Your task to perform on an android device: change the clock display to analog Image 0: 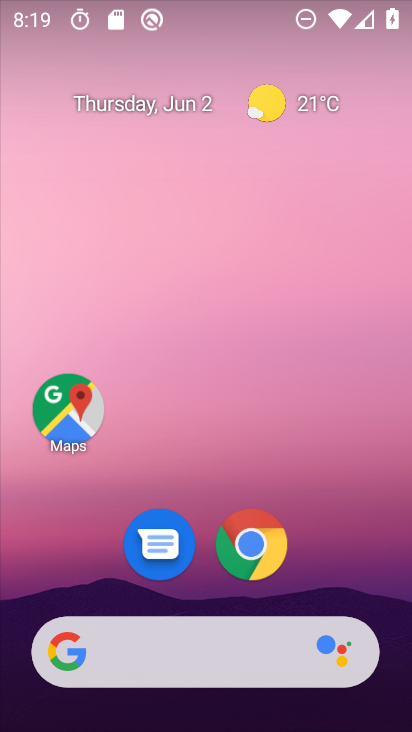
Step 0: drag from (362, 590) to (374, 69)
Your task to perform on an android device: change the clock display to analog Image 1: 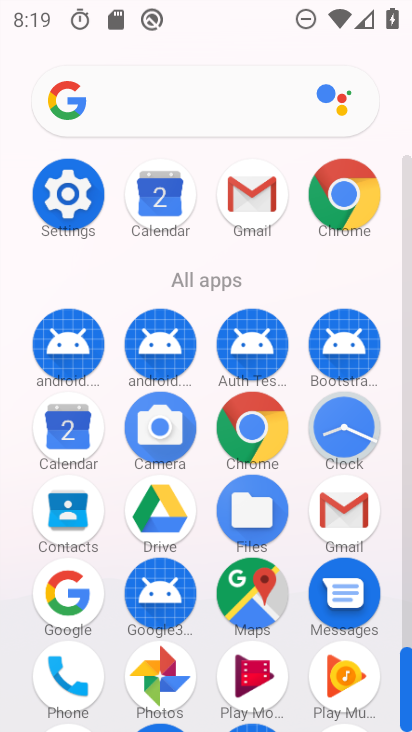
Step 1: click (347, 423)
Your task to perform on an android device: change the clock display to analog Image 2: 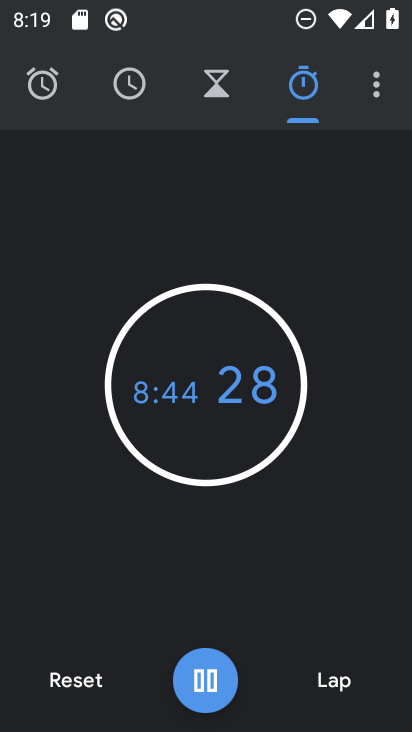
Step 2: click (382, 97)
Your task to perform on an android device: change the clock display to analog Image 3: 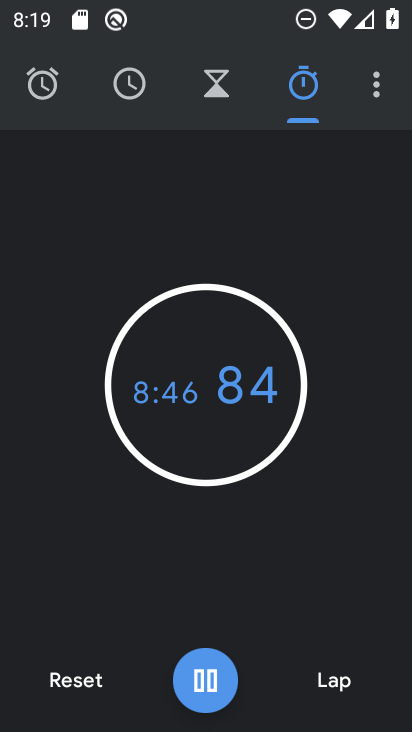
Step 3: click (378, 97)
Your task to perform on an android device: change the clock display to analog Image 4: 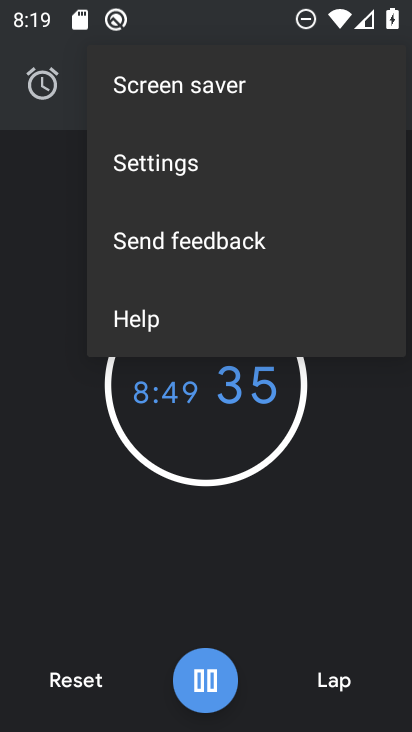
Step 4: click (221, 169)
Your task to perform on an android device: change the clock display to analog Image 5: 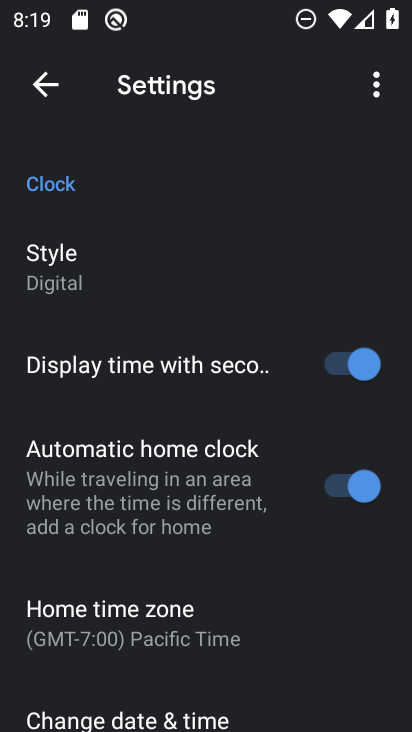
Step 5: click (84, 273)
Your task to perform on an android device: change the clock display to analog Image 6: 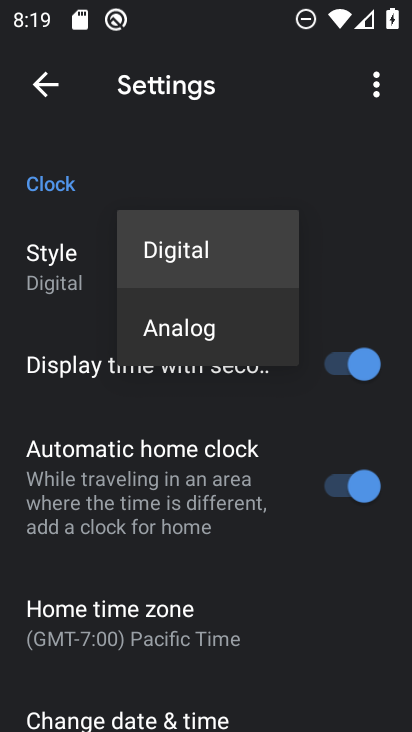
Step 6: click (153, 315)
Your task to perform on an android device: change the clock display to analog Image 7: 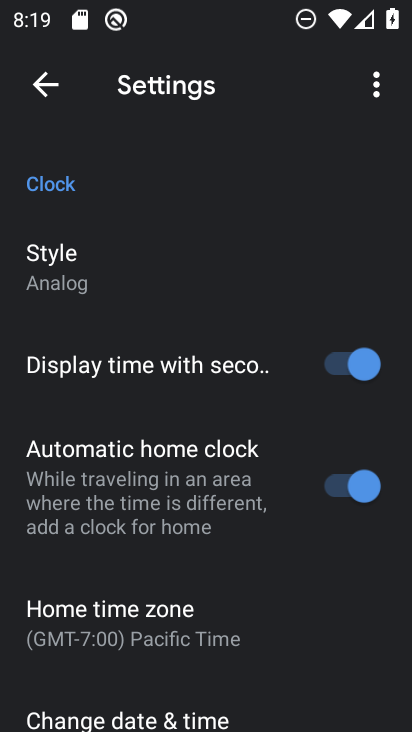
Step 7: task complete